Your task to perform on an android device: Add "usb-b" to the cart on ebay Image 0: 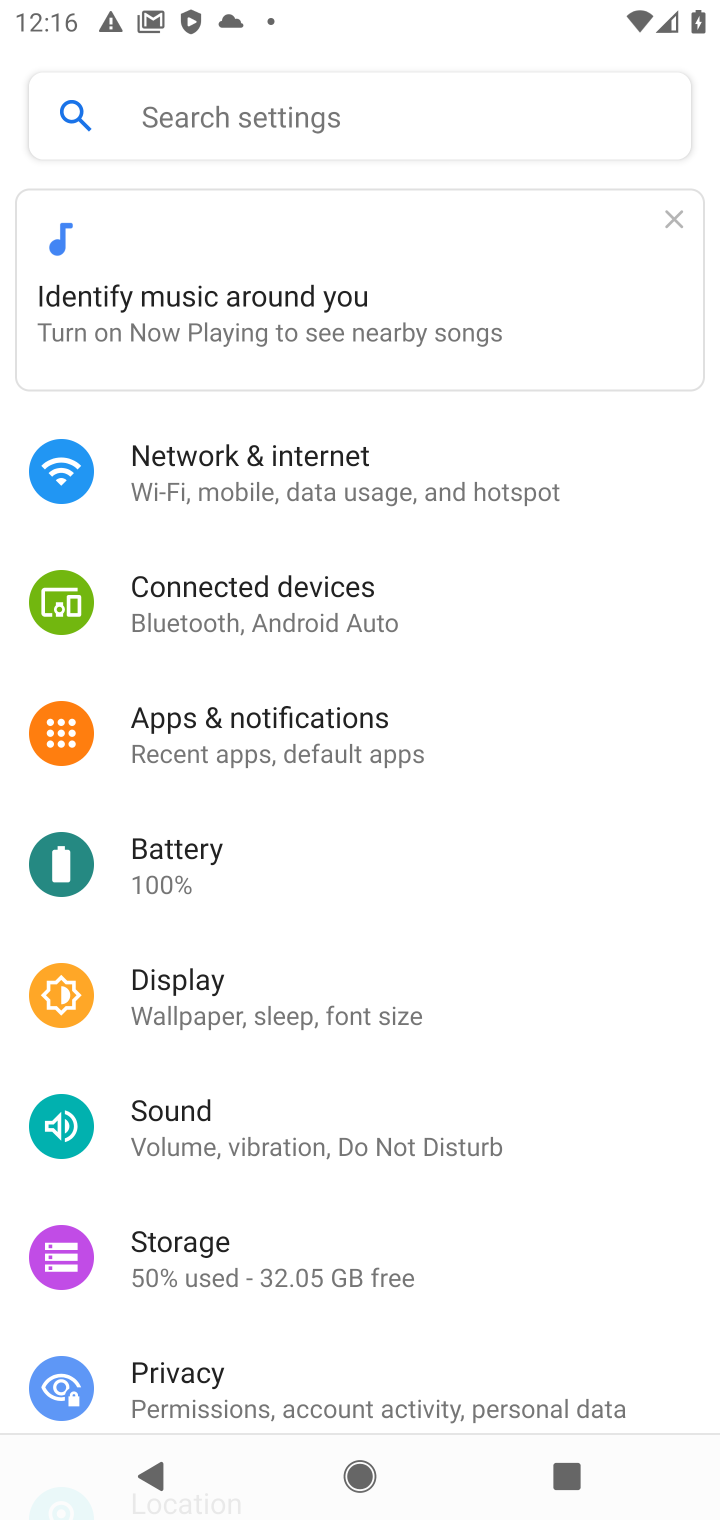
Step 0: press home button
Your task to perform on an android device: Add "usb-b" to the cart on ebay Image 1: 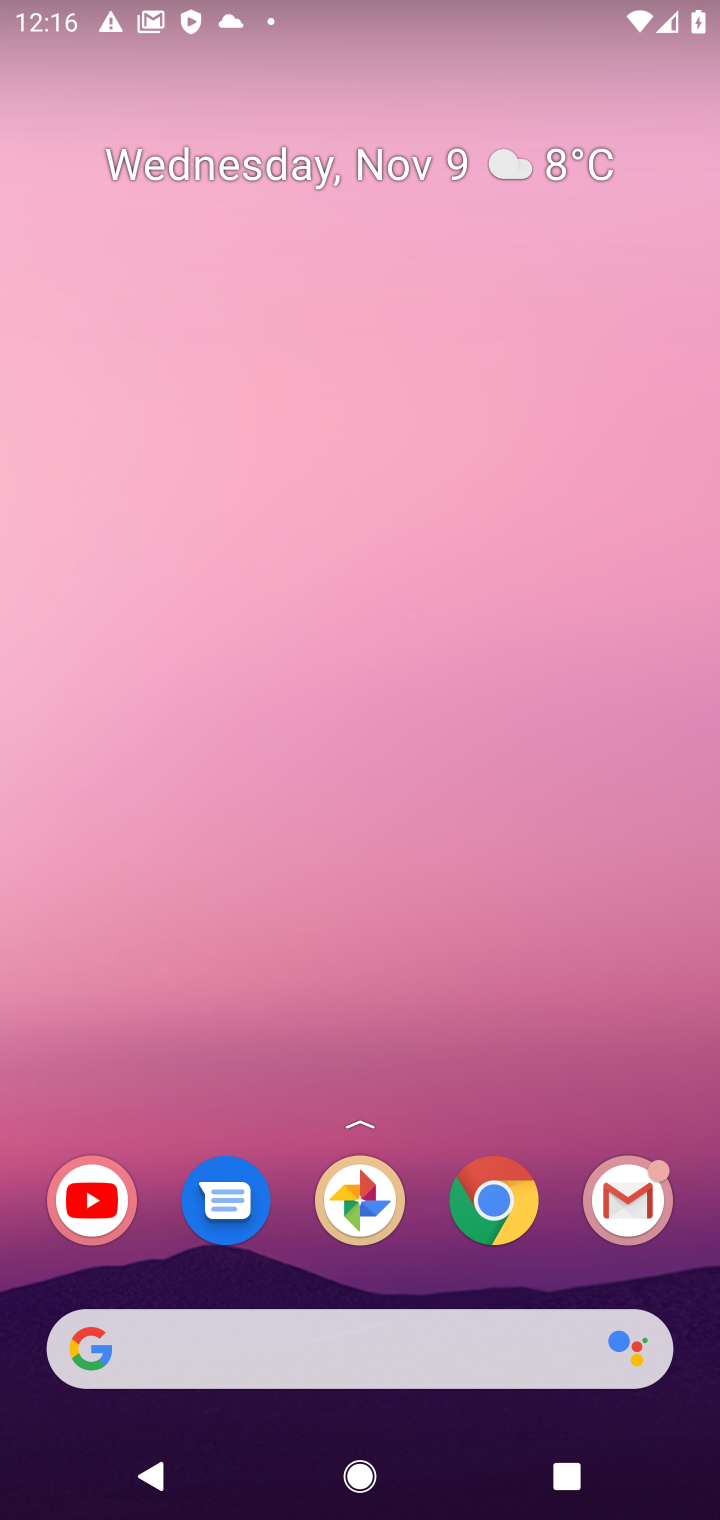
Step 1: click (309, 1369)
Your task to perform on an android device: Add "usb-b" to the cart on ebay Image 2: 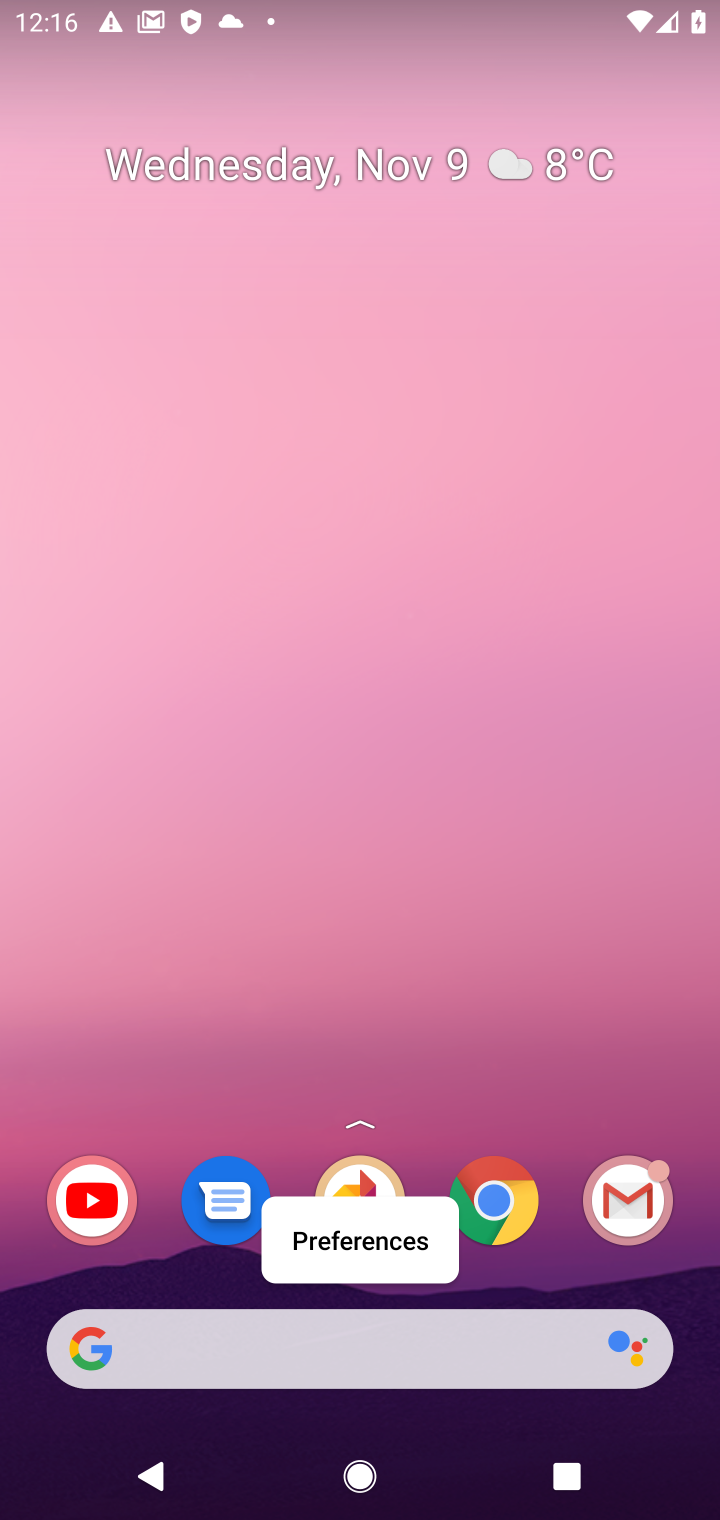
Step 2: click (212, 1331)
Your task to perform on an android device: Add "usb-b" to the cart on ebay Image 3: 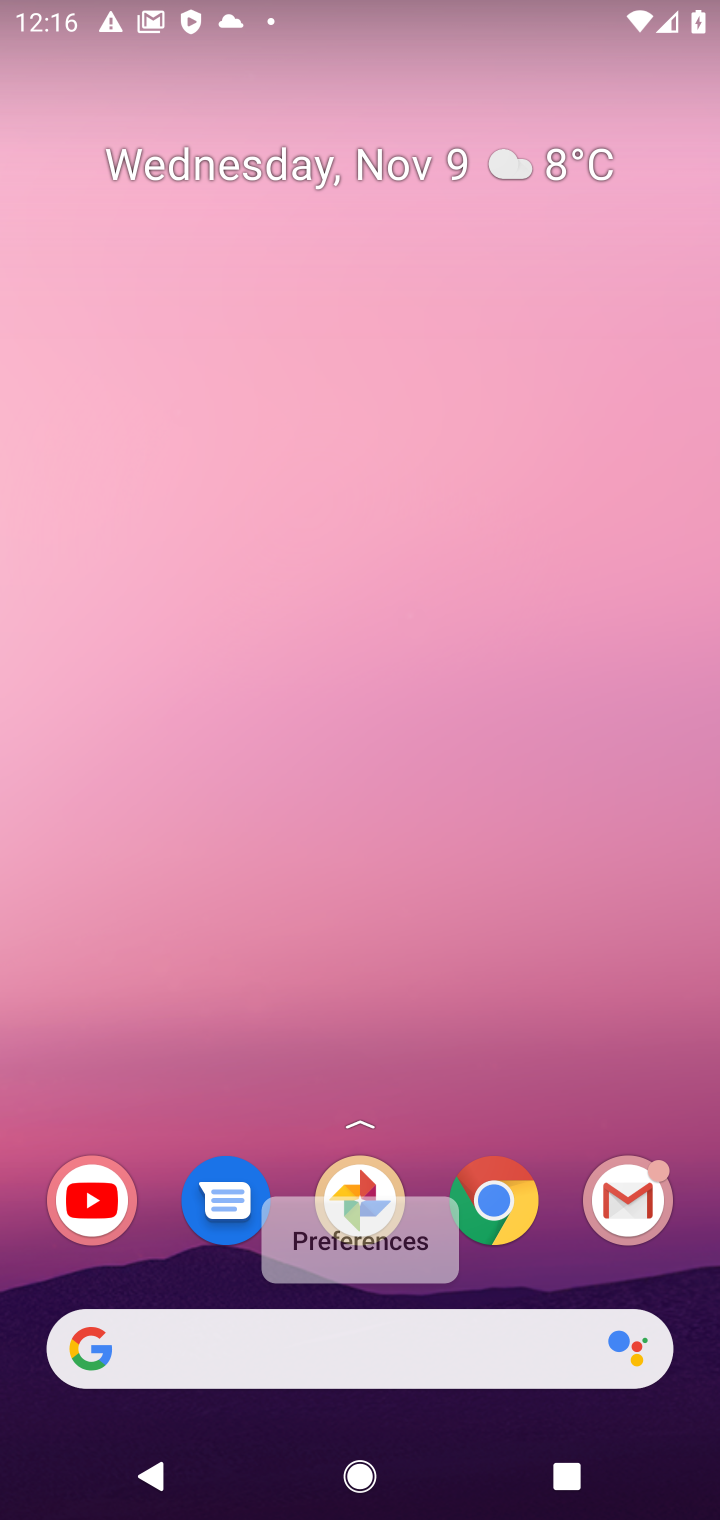
Step 3: click (212, 1331)
Your task to perform on an android device: Add "usb-b" to the cart on ebay Image 4: 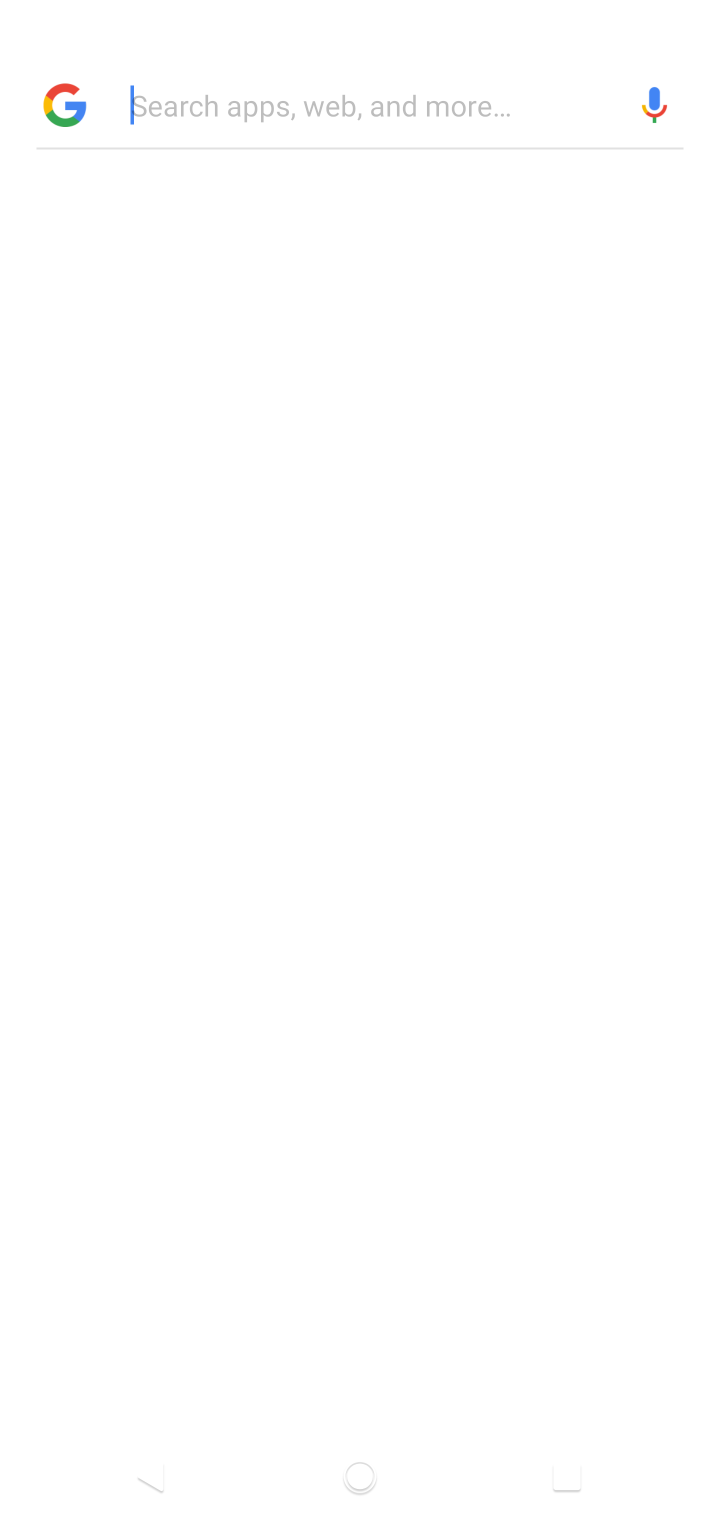
Step 4: click (212, 1331)
Your task to perform on an android device: Add "usb-b" to the cart on ebay Image 5: 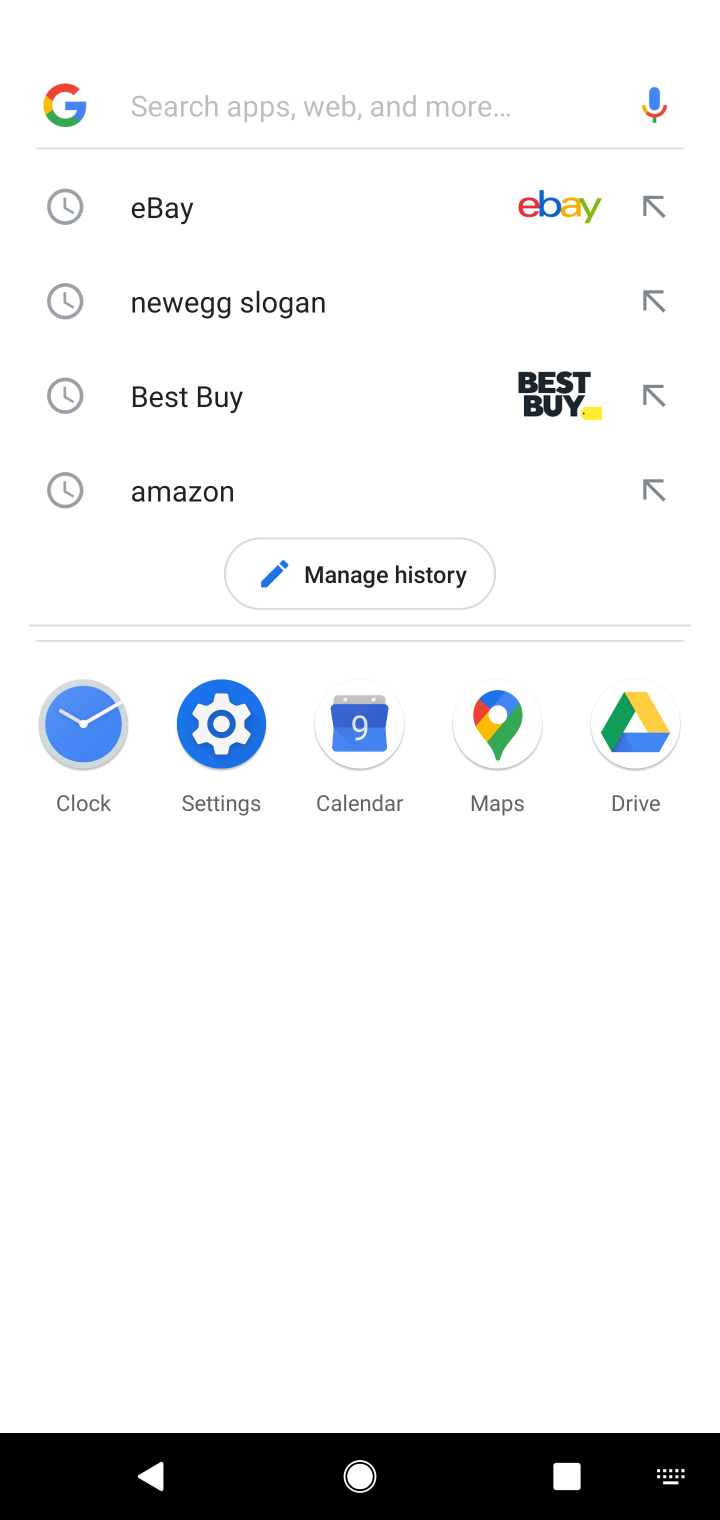
Step 5: click (148, 208)
Your task to perform on an android device: Add "usb-b" to the cart on ebay Image 6: 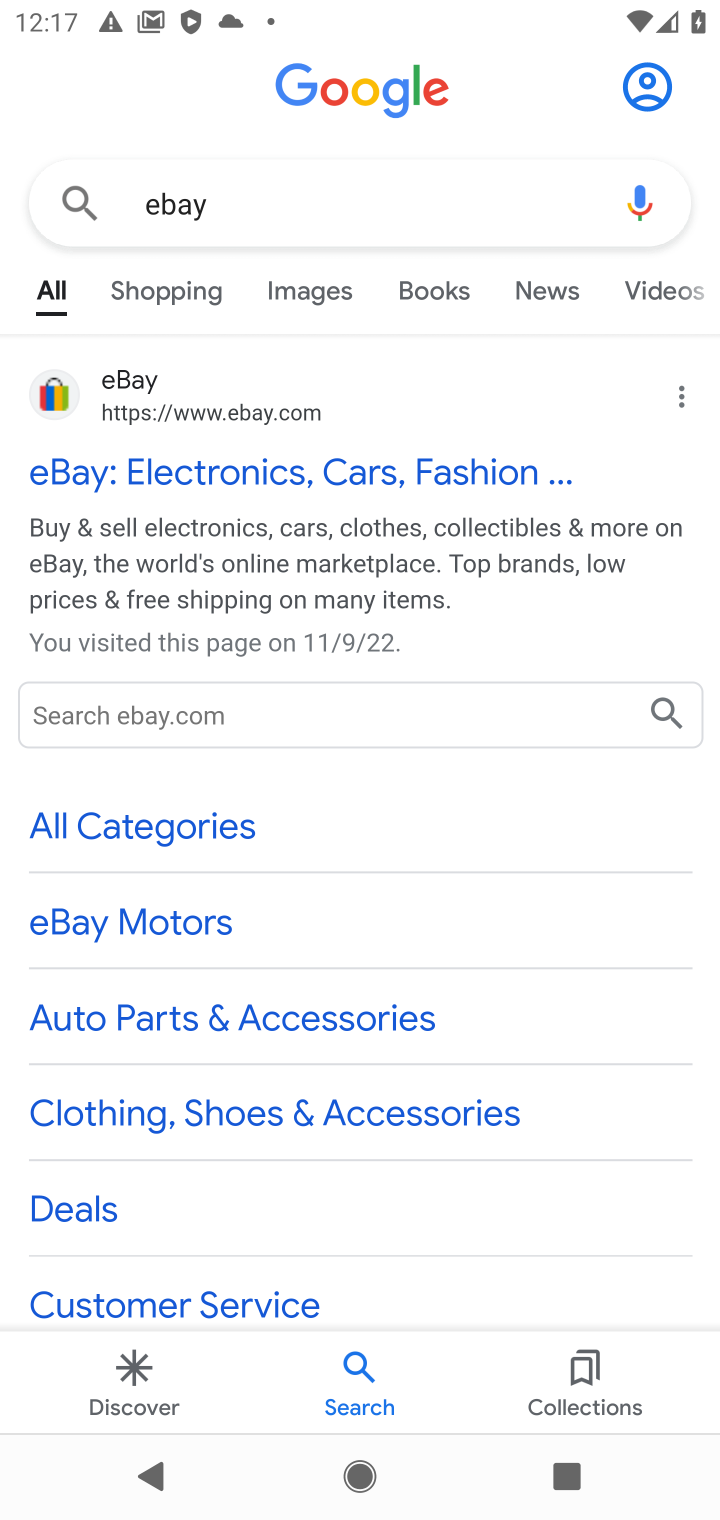
Step 6: click (174, 454)
Your task to perform on an android device: Add "usb-b" to the cart on ebay Image 7: 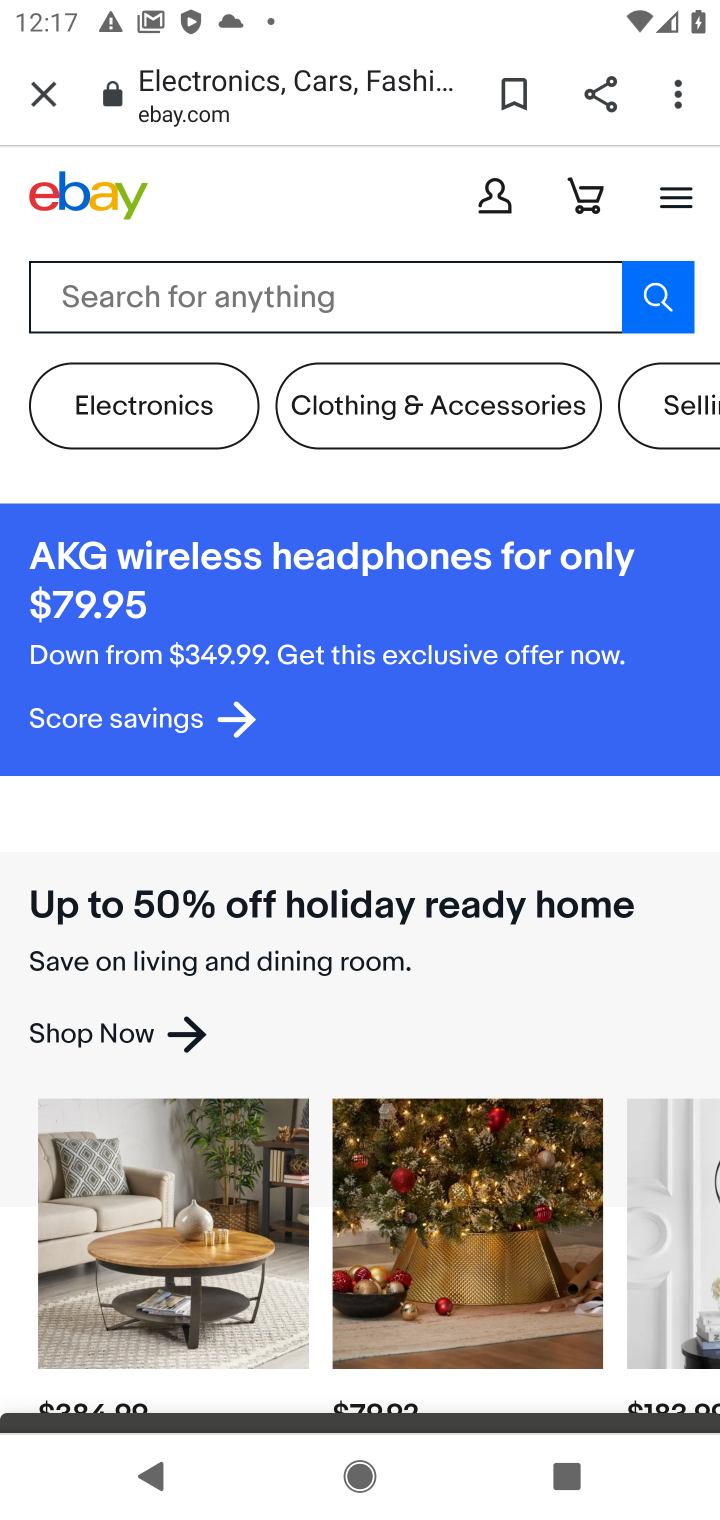
Step 7: click (213, 297)
Your task to perform on an android device: Add "usb-b" to the cart on ebay Image 8: 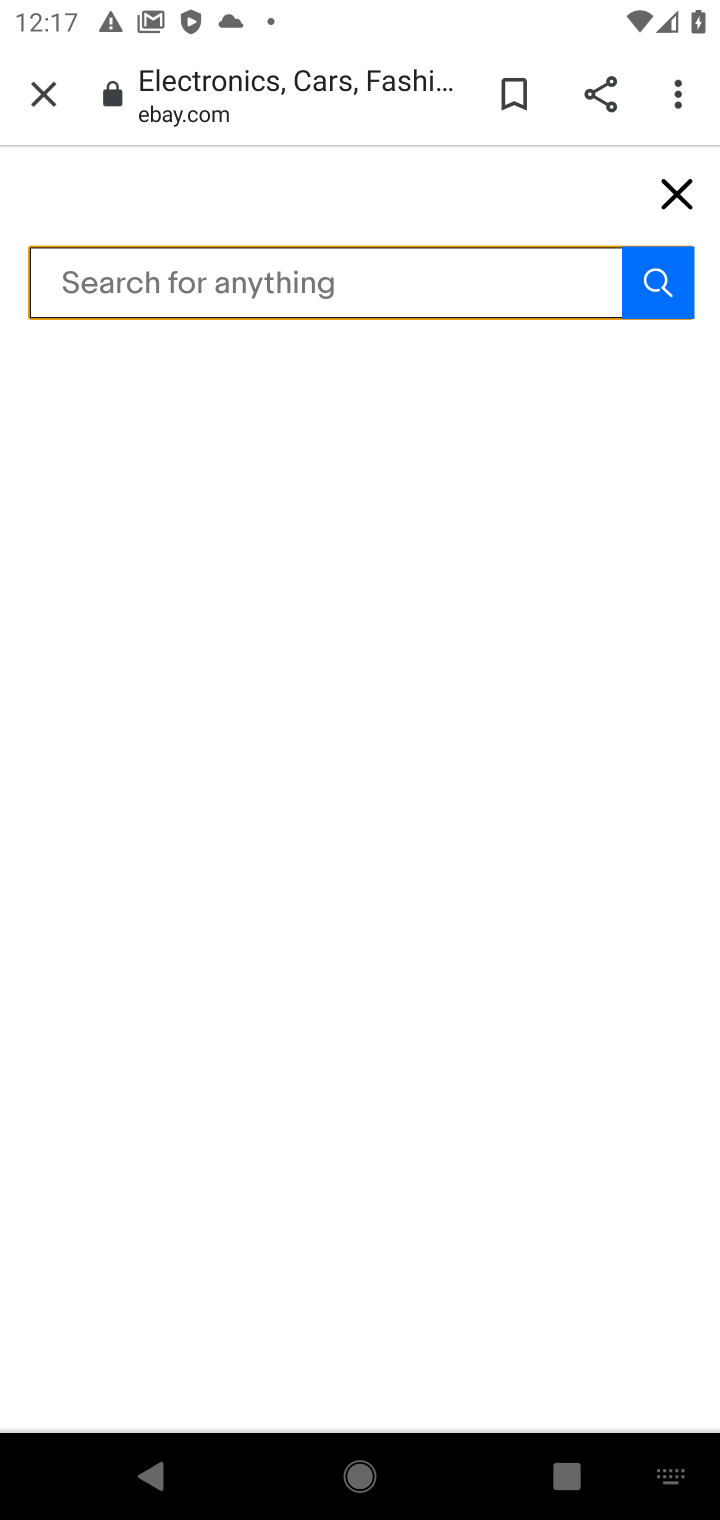
Step 8: type "usb-b"
Your task to perform on an android device: Add "usb-b" to the cart on ebay Image 9: 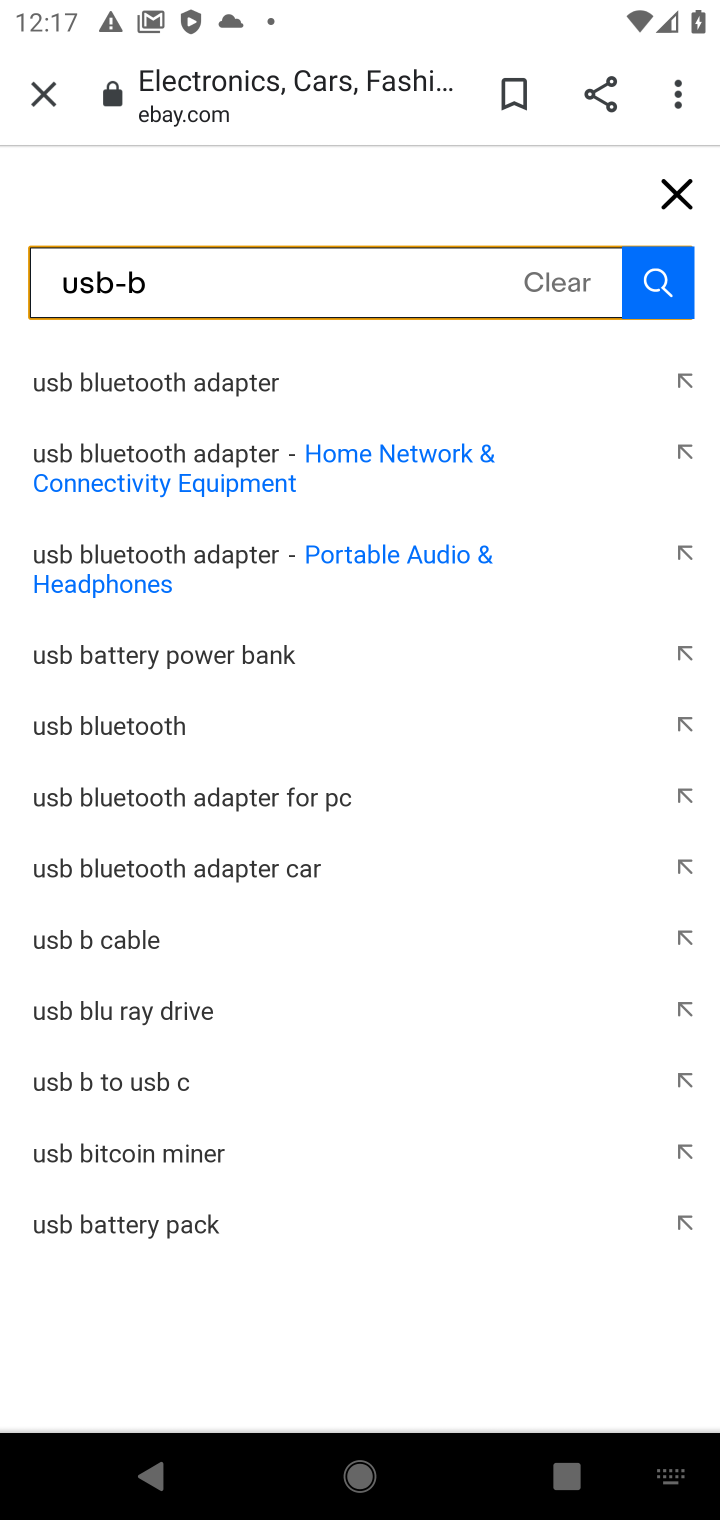
Step 9: click (286, 402)
Your task to perform on an android device: Add "usb-b" to the cart on ebay Image 10: 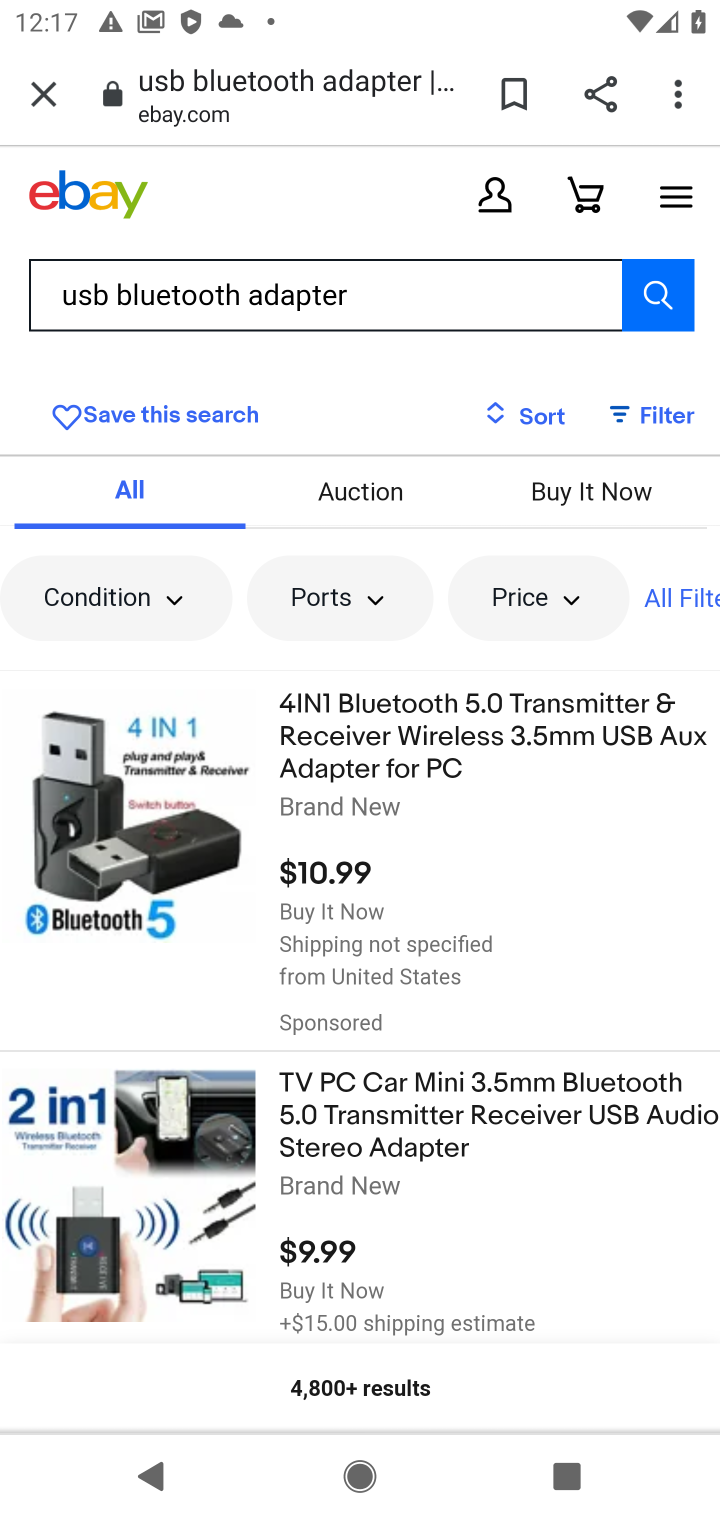
Step 10: task complete